Your task to perform on an android device: Open settings Image 0: 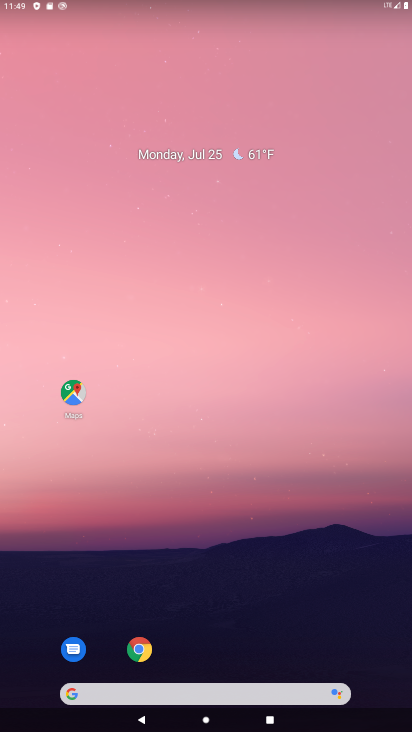
Step 0: drag from (199, 654) to (192, 146)
Your task to perform on an android device: Open settings Image 1: 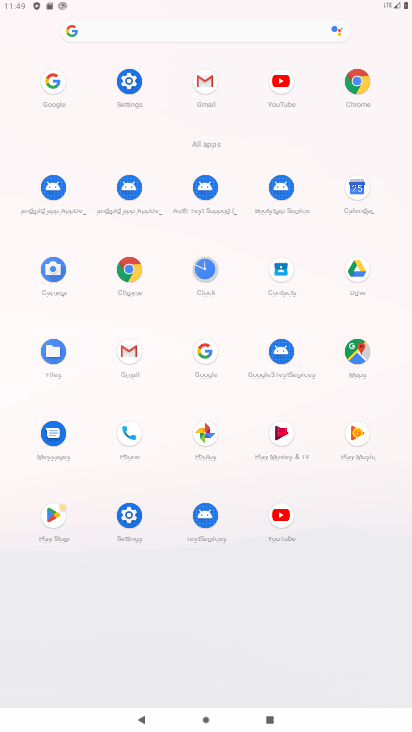
Step 1: click (125, 90)
Your task to perform on an android device: Open settings Image 2: 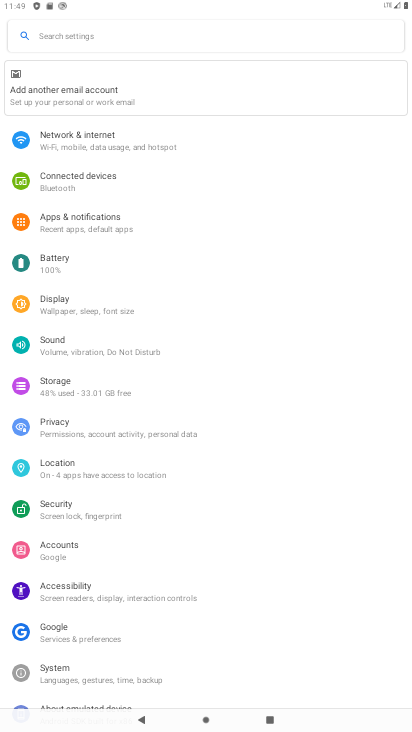
Step 2: task complete